Your task to perform on an android device: change keyboard looks Image 0: 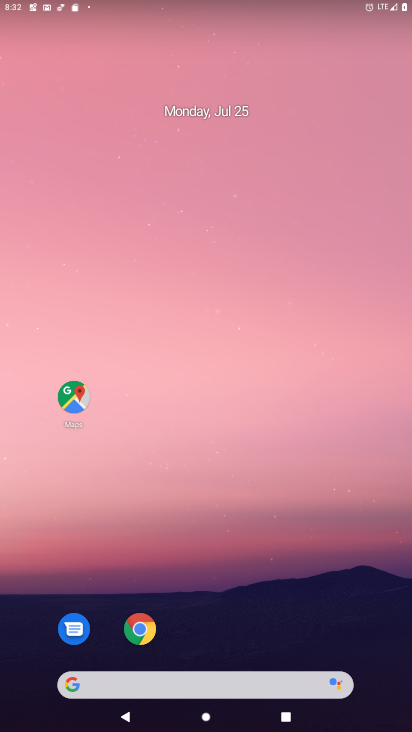
Step 0: drag from (175, 679) to (332, 34)
Your task to perform on an android device: change keyboard looks Image 1: 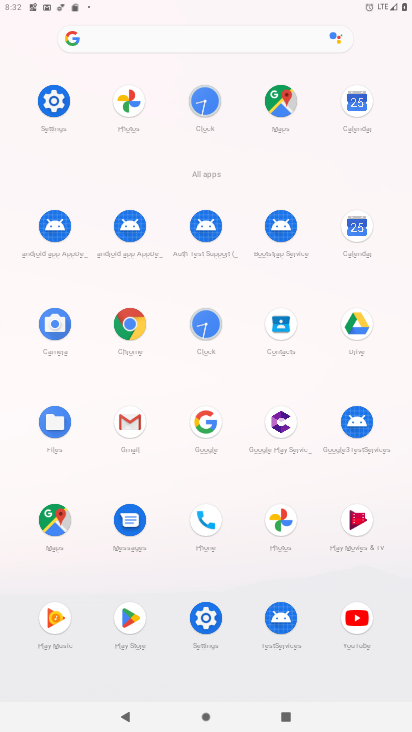
Step 1: click (53, 102)
Your task to perform on an android device: change keyboard looks Image 2: 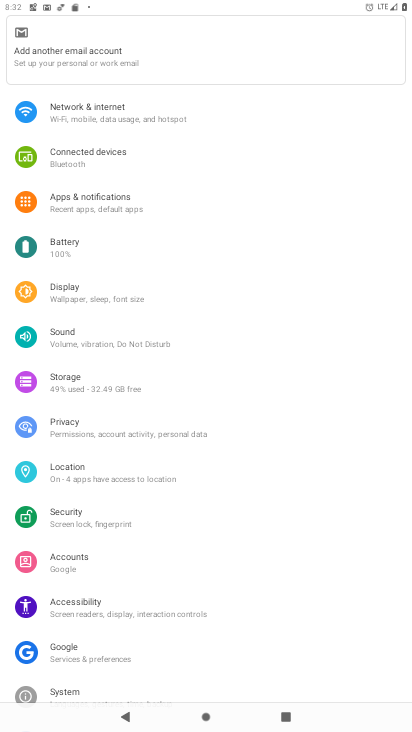
Step 2: drag from (119, 493) to (182, 397)
Your task to perform on an android device: change keyboard looks Image 3: 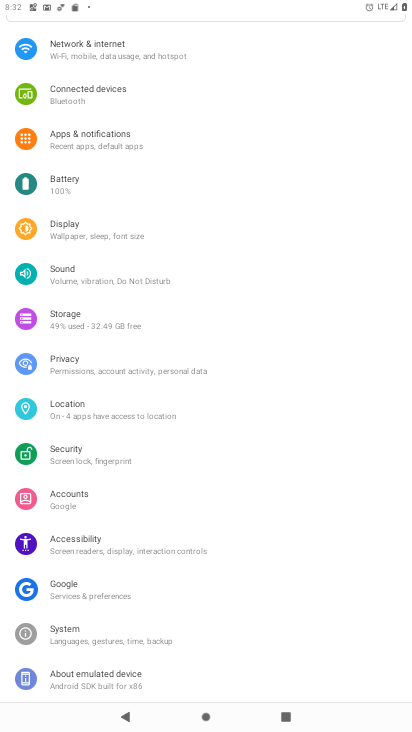
Step 3: drag from (138, 513) to (208, 410)
Your task to perform on an android device: change keyboard looks Image 4: 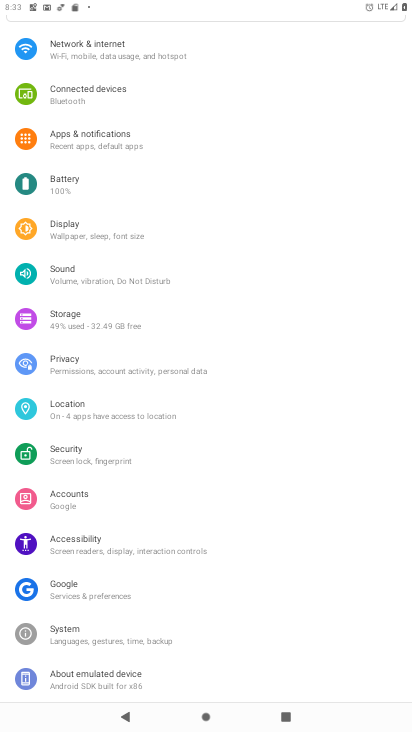
Step 4: click (78, 631)
Your task to perform on an android device: change keyboard looks Image 5: 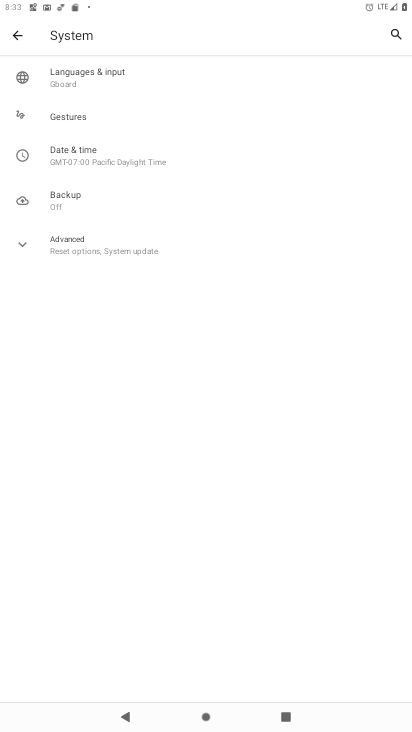
Step 5: click (74, 75)
Your task to perform on an android device: change keyboard looks Image 6: 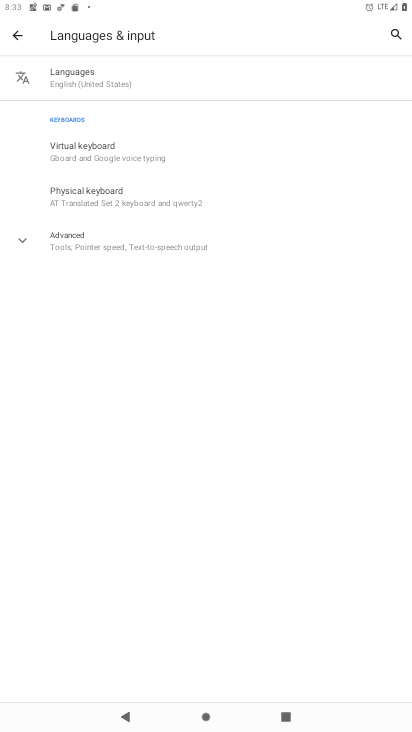
Step 6: click (102, 148)
Your task to perform on an android device: change keyboard looks Image 7: 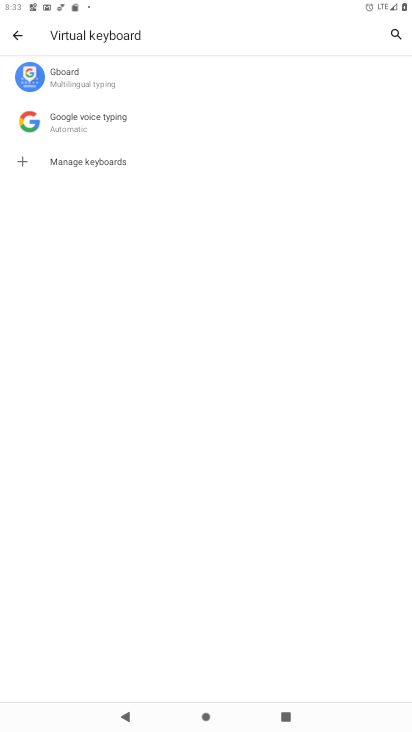
Step 7: click (66, 77)
Your task to perform on an android device: change keyboard looks Image 8: 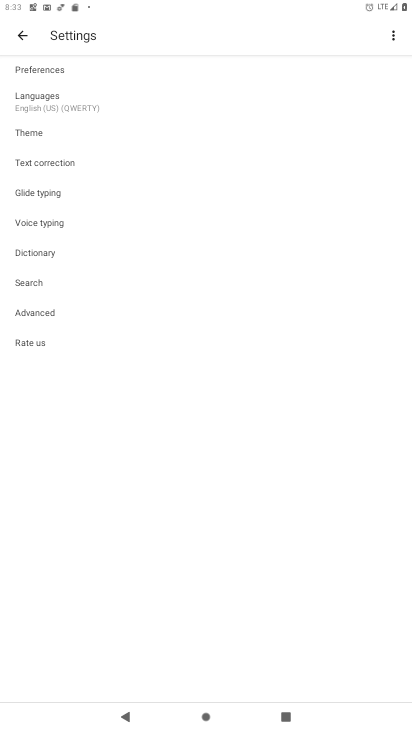
Step 8: click (33, 130)
Your task to perform on an android device: change keyboard looks Image 9: 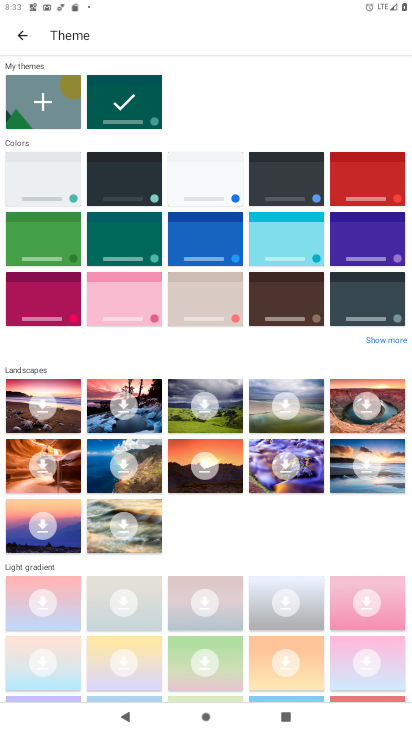
Step 9: click (121, 184)
Your task to perform on an android device: change keyboard looks Image 10: 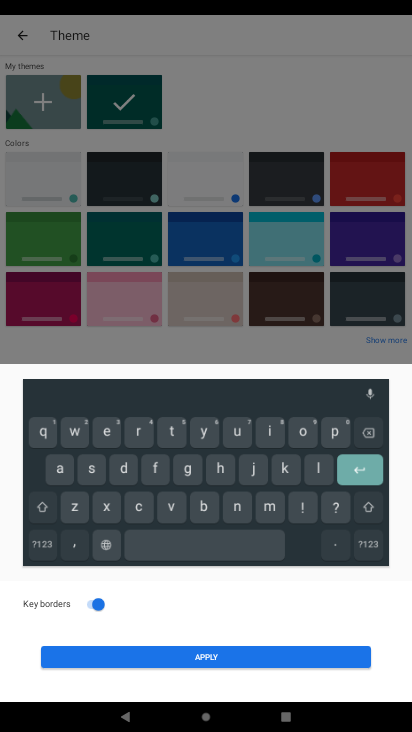
Step 10: click (206, 653)
Your task to perform on an android device: change keyboard looks Image 11: 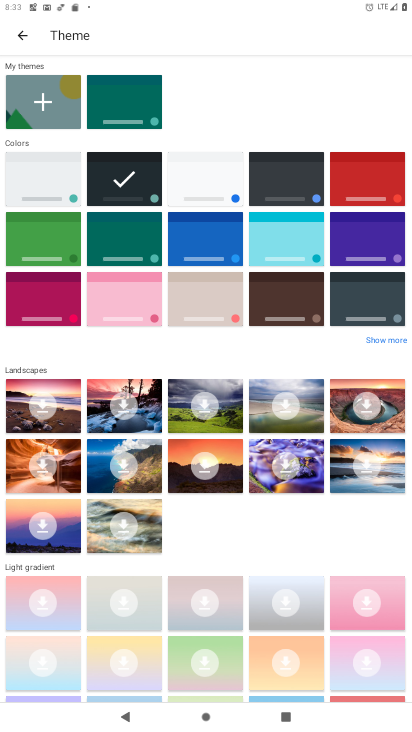
Step 11: task complete